Your task to perform on an android device: Go to Google maps Image 0: 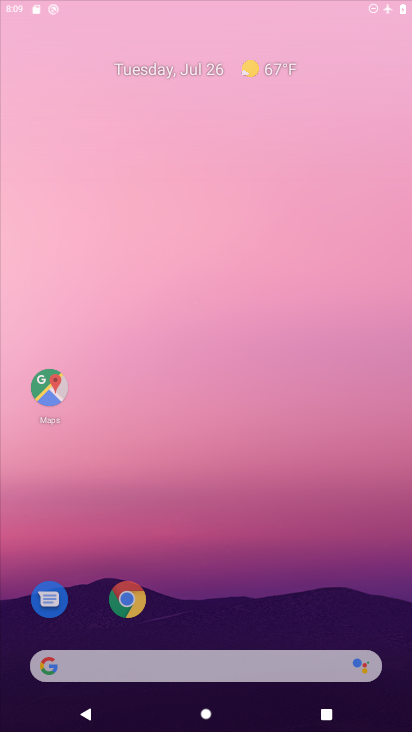
Step 0: drag from (285, 272) to (274, 136)
Your task to perform on an android device: Go to Google maps Image 1: 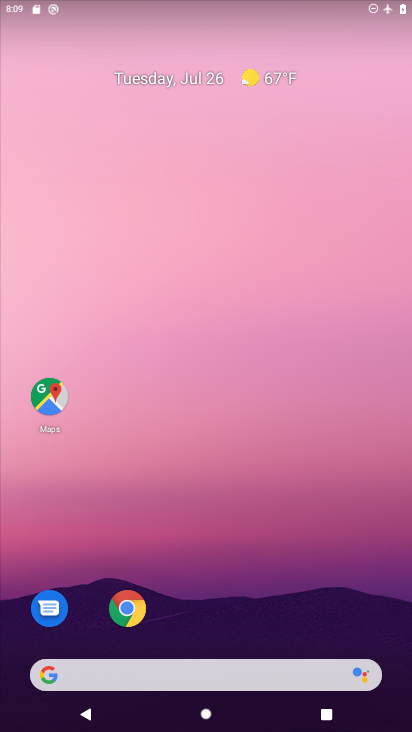
Step 1: click (49, 395)
Your task to perform on an android device: Go to Google maps Image 2: 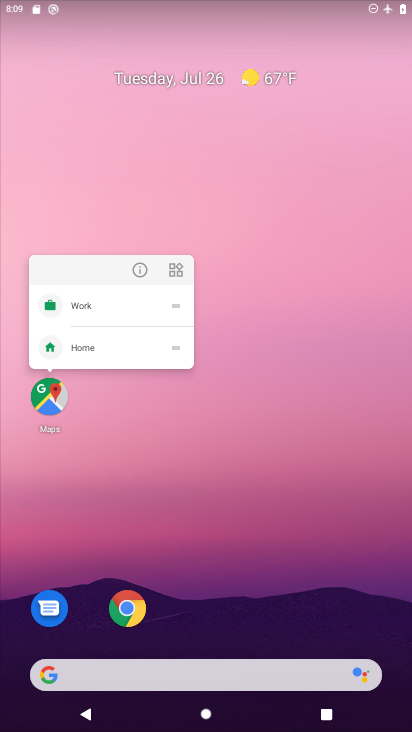
Step 2: click (34, 402)
Your task to perform on an android device: Go to Google maps Image 3: 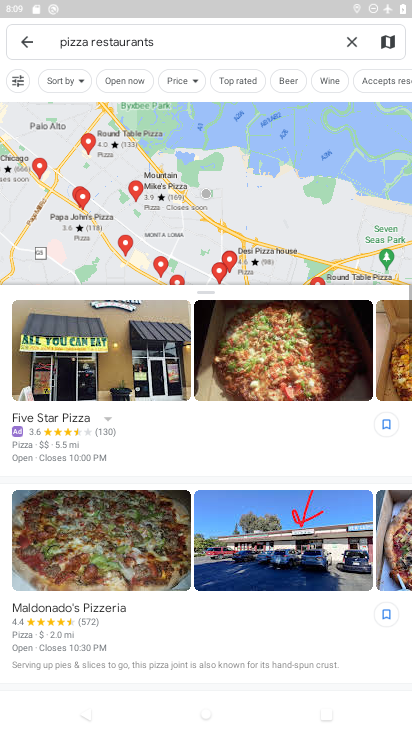
Step 3: click (26, 44)
Your task to perform on an android device: Go to Google maps Image 4: 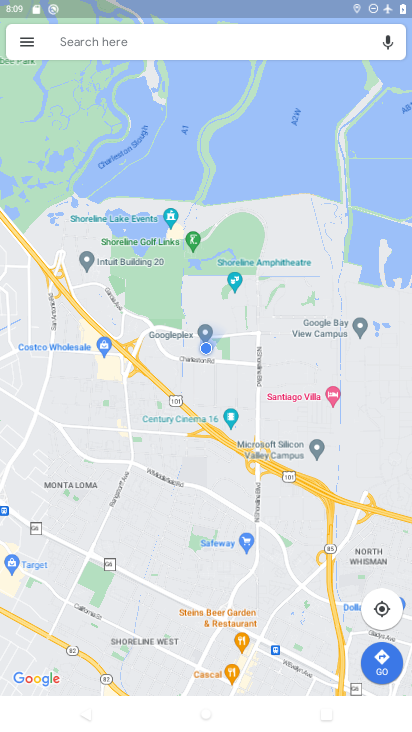
Step 4: task complete